Your task to perform on an android device: turn on notifications settings in the gmail app Image 0: 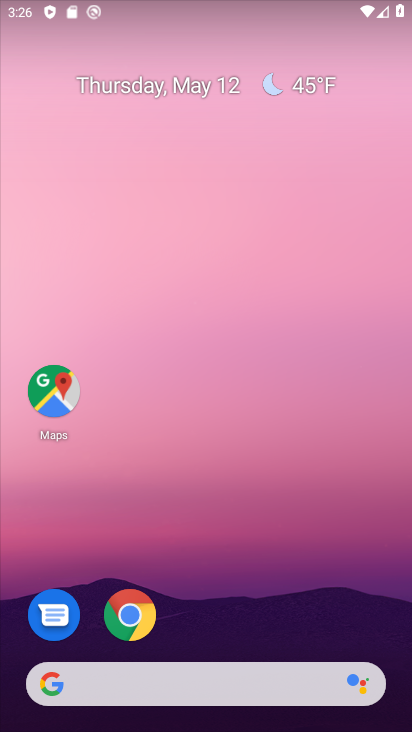
Step 0: drag from (267, 619) to (250, 0)
Your task to perform on an android device: turn on notifications settings in the gmail app Image 1: 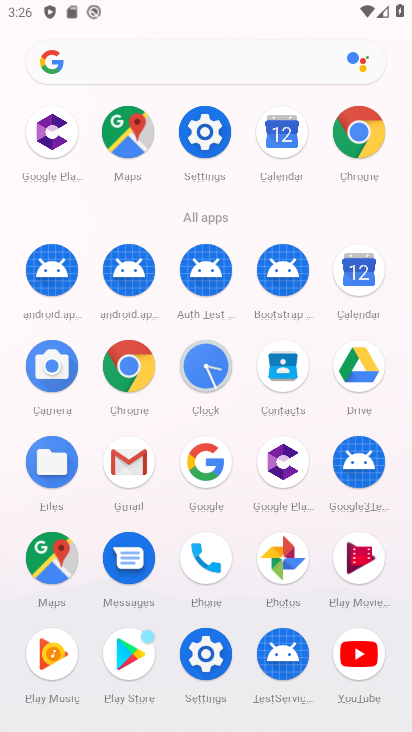
Step 1: click (121, 453)
Your task to perform on an android device: turn on notifications settings in the gmail app Image 2: 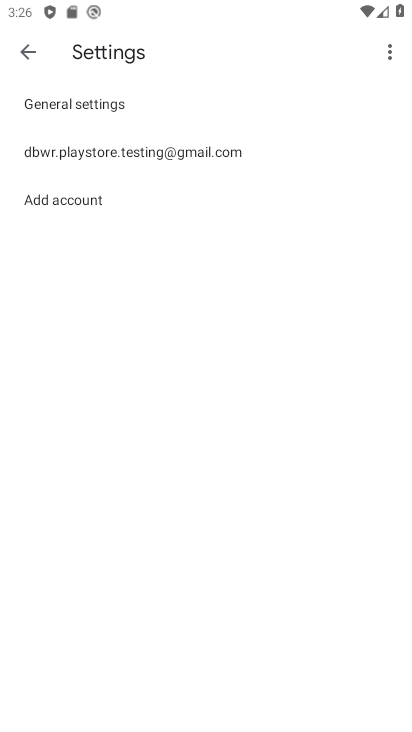
Step 2: click (81, 153)
Your task to perform on an android device: turn on notifications settings in the gmail app Image 3: 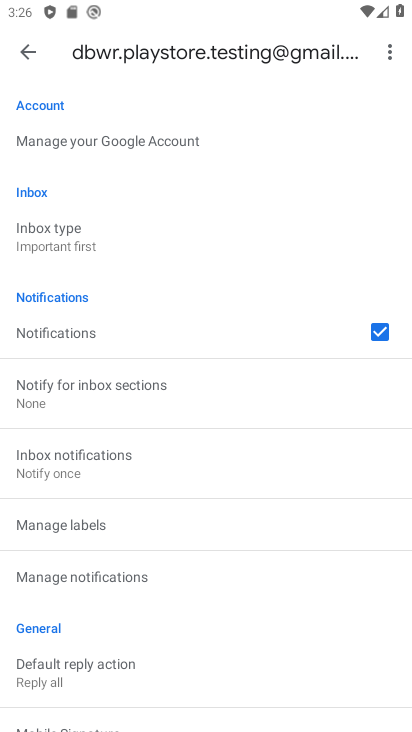
Step 3: click (143, 569)
Your task to perform on an android device: turn on notifications settings in the gmail app Image 4: 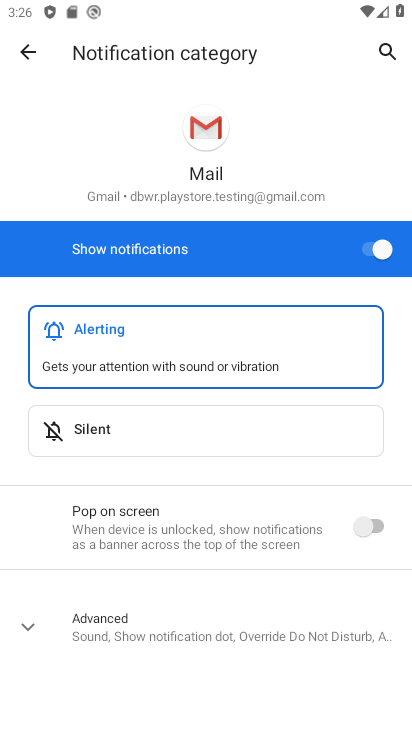
Step 4: task complete